Your task to perform on an android device: change timer sound Image 0: 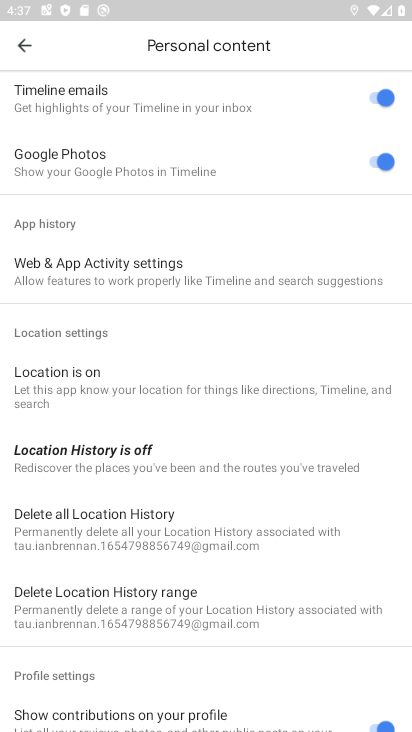
Step 0: press home button
Your task to perform on an android device: change timer sound Image 1: 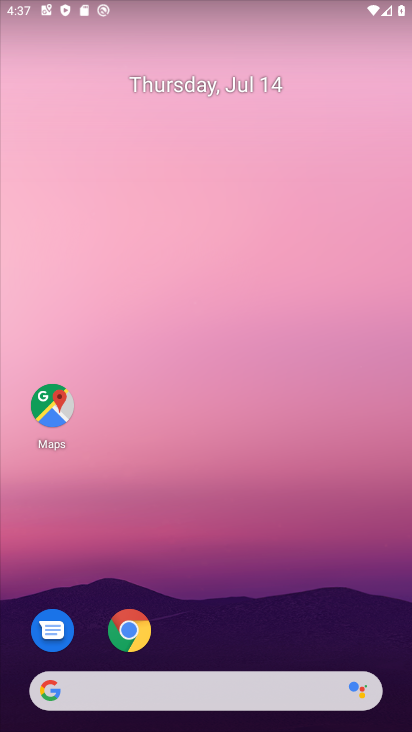
Step 1: drag from (260, 702) to (275, 50)
Your task to perform on an android device: change timer sound Image 2: 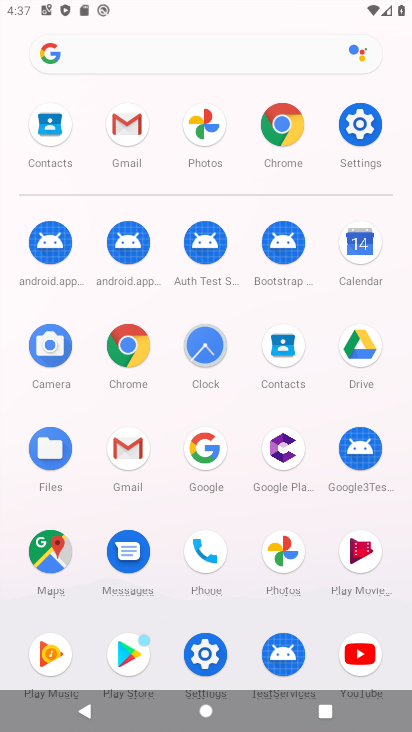
Step 2: click (371, 111)
Your task to perform on an android device: change timer sound Image 3: 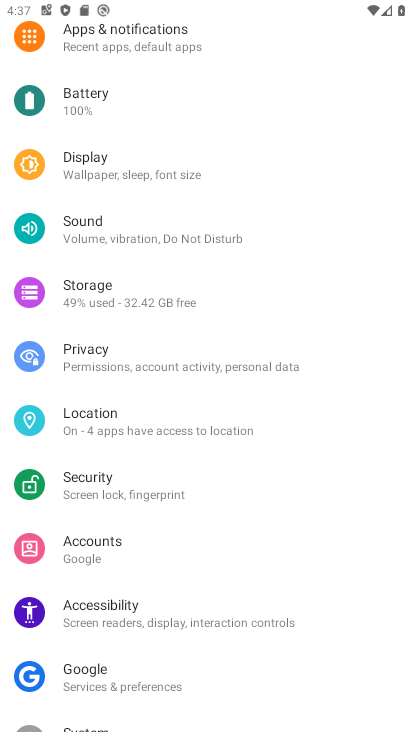
Step 3: press home button
Your task to perform on an android device: change timer sound Image 4: 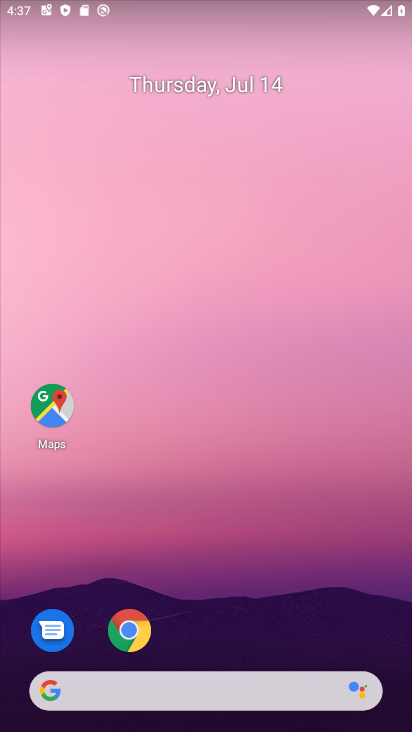
Step 4: drag from (318, 683) to (362, 49)
Your task to perform on an android device: change timer sound Image 5: 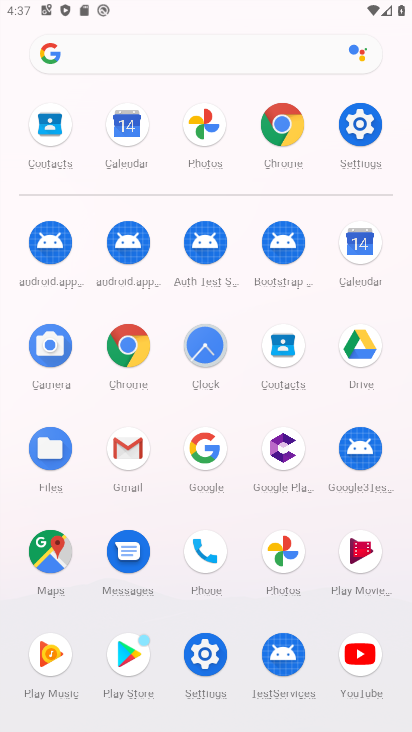
Step 5: click (206, 350)
Your task to perform on an android device: change timer sound Image 6: 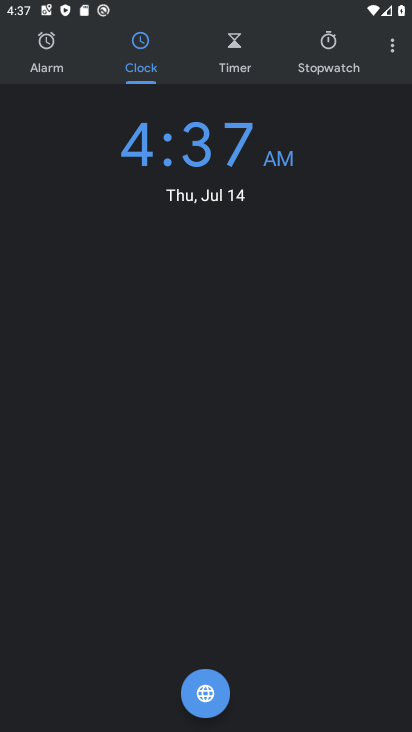
Step 6: click (395, 47)
Your task to perform on an android device: change timer sound Image 7: 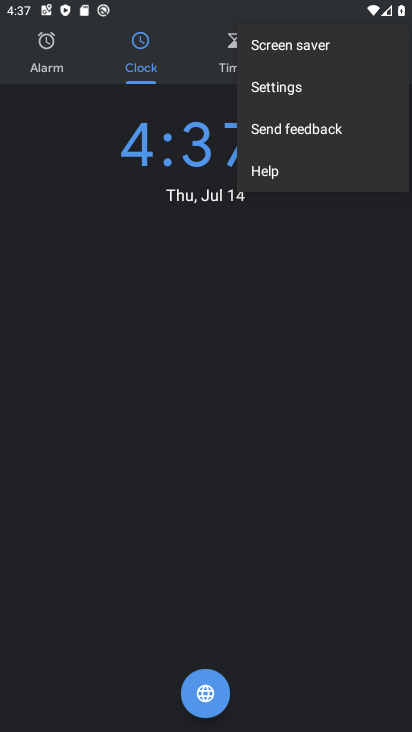
Step 7: click (287, 94)
Your task to perform on an android device: change timer sound Image 8: 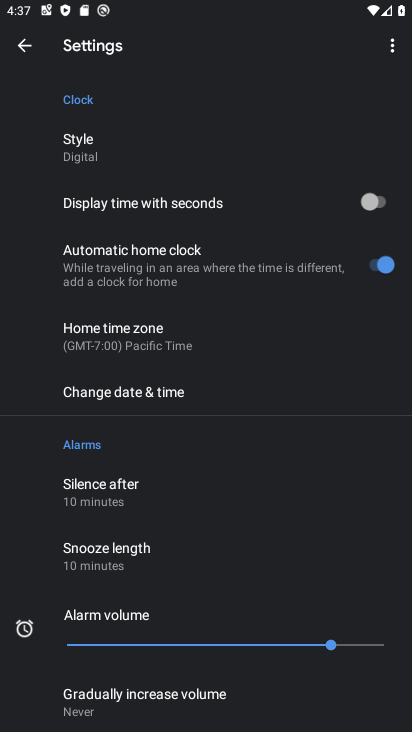
Step 8: drag from (139, 553) to (150, 202)
Your task to perform on an android device: change timer sound Image 9: 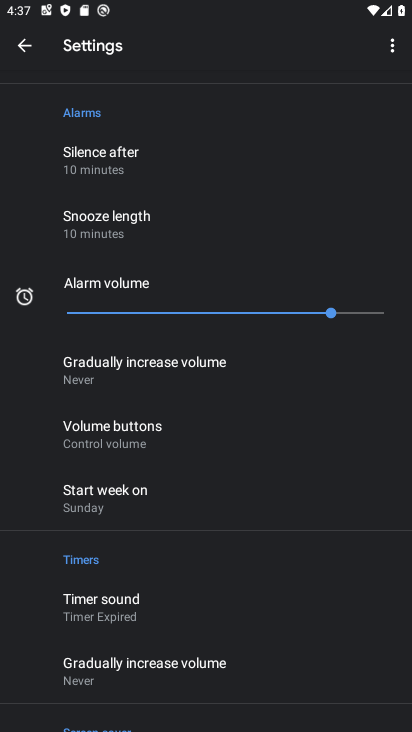
Step 9: click (148, 600)
Your task to perform on an android device: change timer sound Image 10: 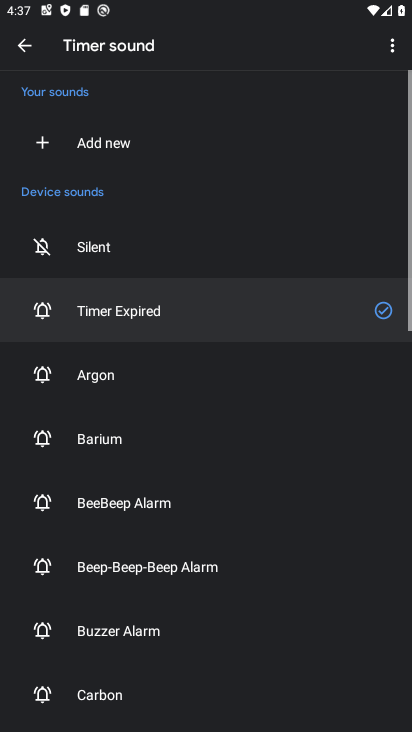
Step 10: click (122, 372)
Your task to perform on an android device: change timer sound Image 11: 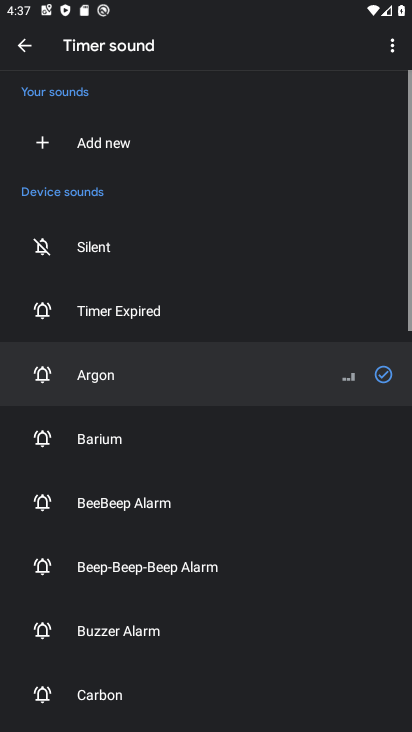
Step 11: task complete